Your task to perform on an android device: When is my next meeting? Image 0: 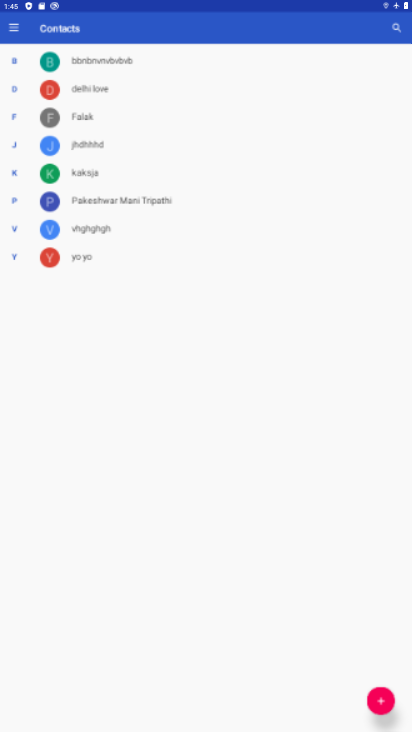
Step 0: drag from (180, 658) to (238, 309)
Your task to perform on an android device: When is my next meeting? Image 1: 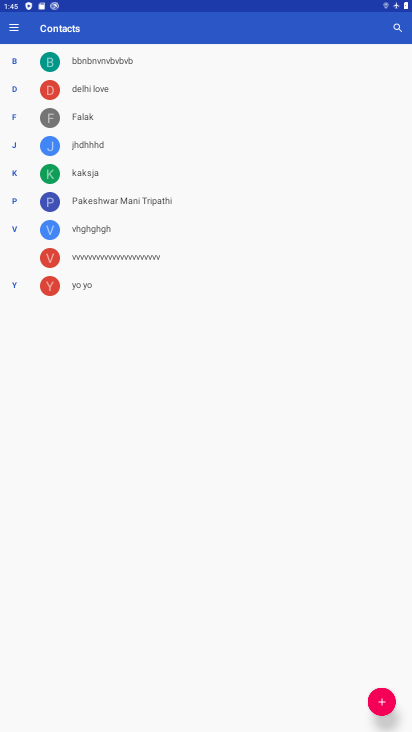
Step 1: press home button
Your task to perform on an android device: When is my next meeting? Image 2: 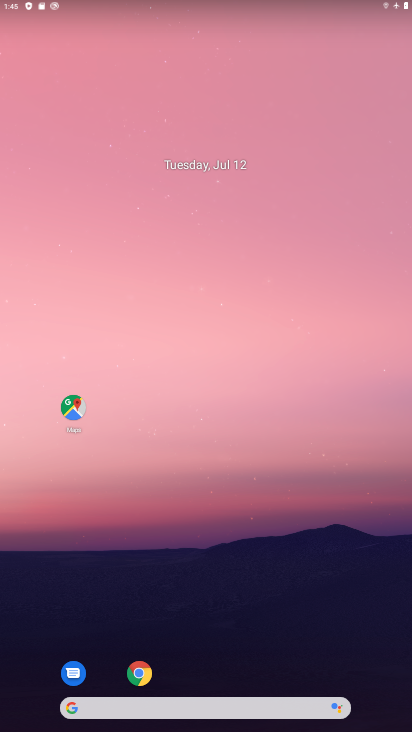
Step 2: drag from (231, 638) to (269, 220)
Your task to perform on an android device: When is my next meeting? Image 3: 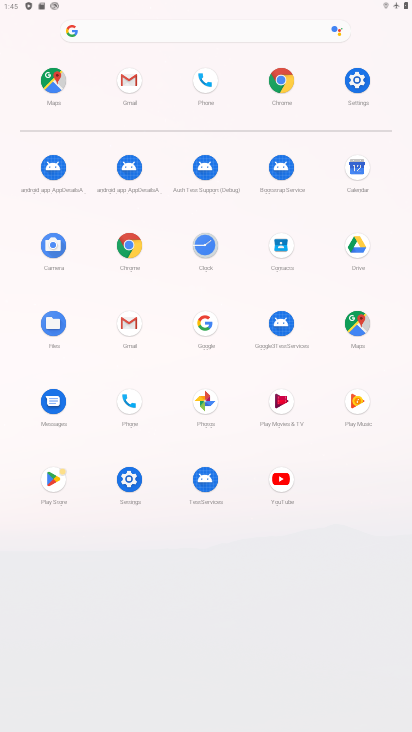
Step 3: click (352, 160)
Your task to perform on an android device: When is my next meeting? Image 4: 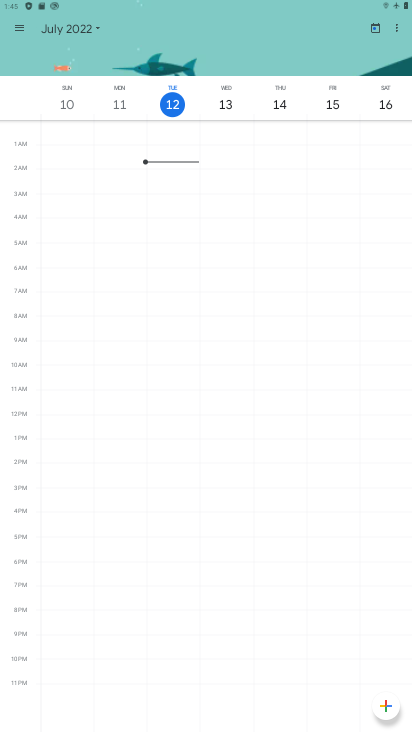
Step 4: click (22, 20)
Your task to perform on an android device: When is my next meeting? Image 5: 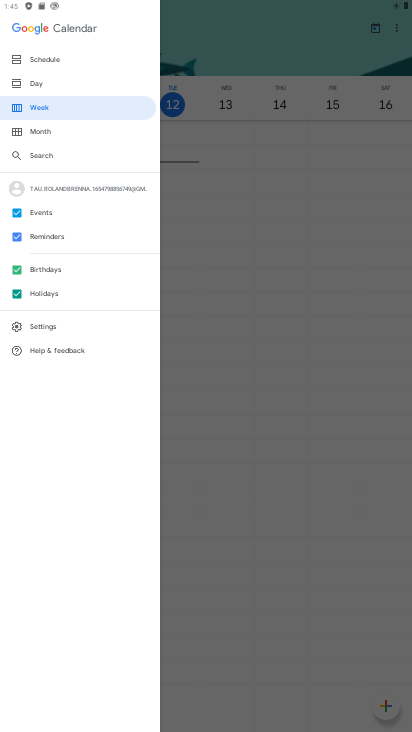
Step 5: click (183, 104)
Your task to perform on an android device: When is my next meeting? Image 6: 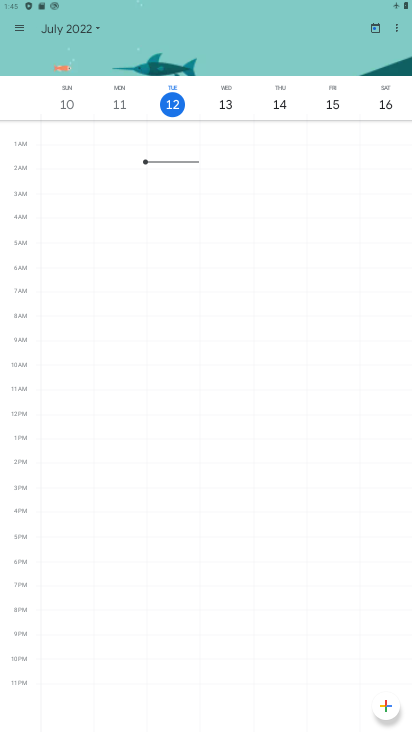
Step 6: task complete